Your task to perform on an android device: Clear the cart on costco. Search for dell alienware on costco, select the first entry, and add it to the cart. Image 0: 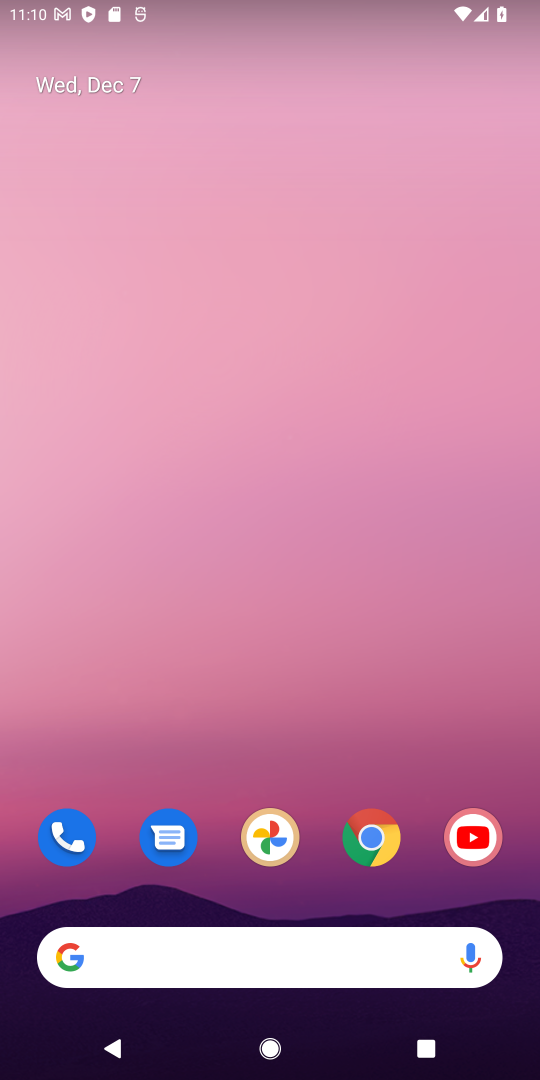
Step 0: click (366, 830)
Your task to perform on an android device: Clear the cart on costco. Search for dell alienware on costco, select the first entry, and add it to the cart. Image 1: 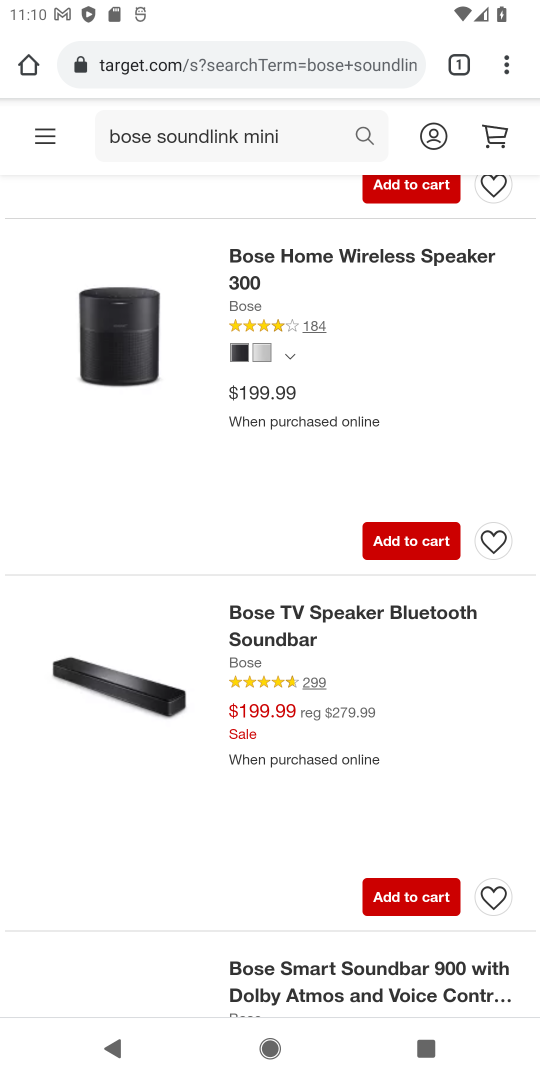
Step 1: click (273, 59)
Your task to perform on an android device: Clear the cart on costco. Search for dell alienware on costco, select the first entry, and add it to the cart. Image 2: 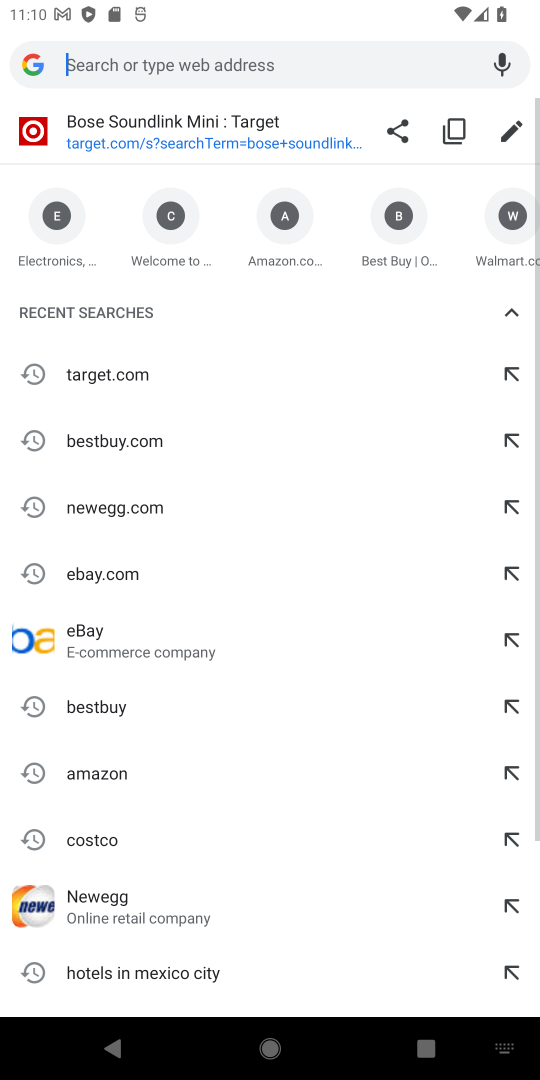
Step 2: type "costco"
Your task to perform on an android device: Clear the cart on costco. Search for dell alienware on costco, select the first entry, and add it to the cart. Image 3: 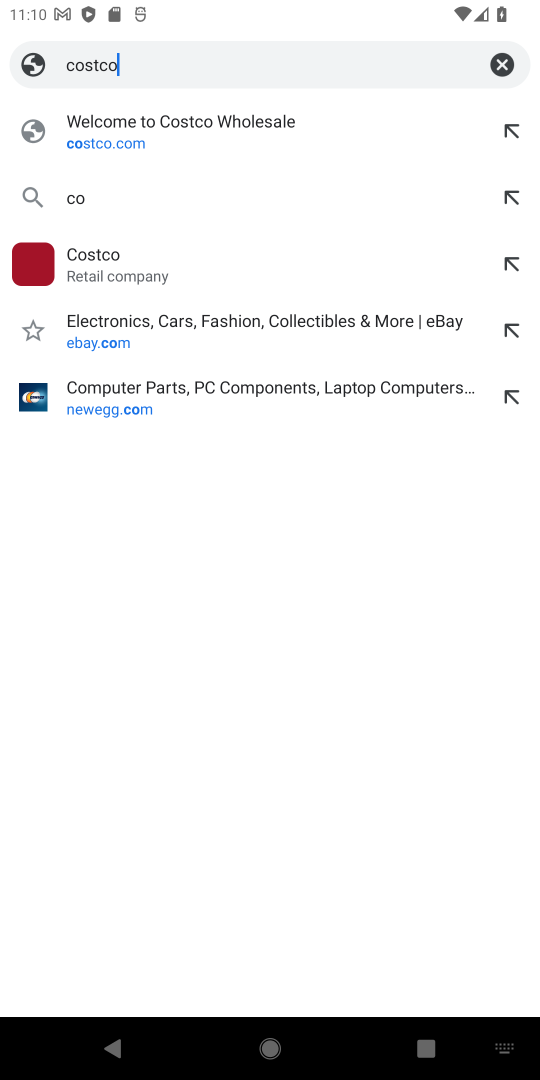
Step 3: press enter
Your task to perform on an android device: Clear the cart on costco. Search for dell alienware on costco, select the first entry, and add it to the cart. Image 4: 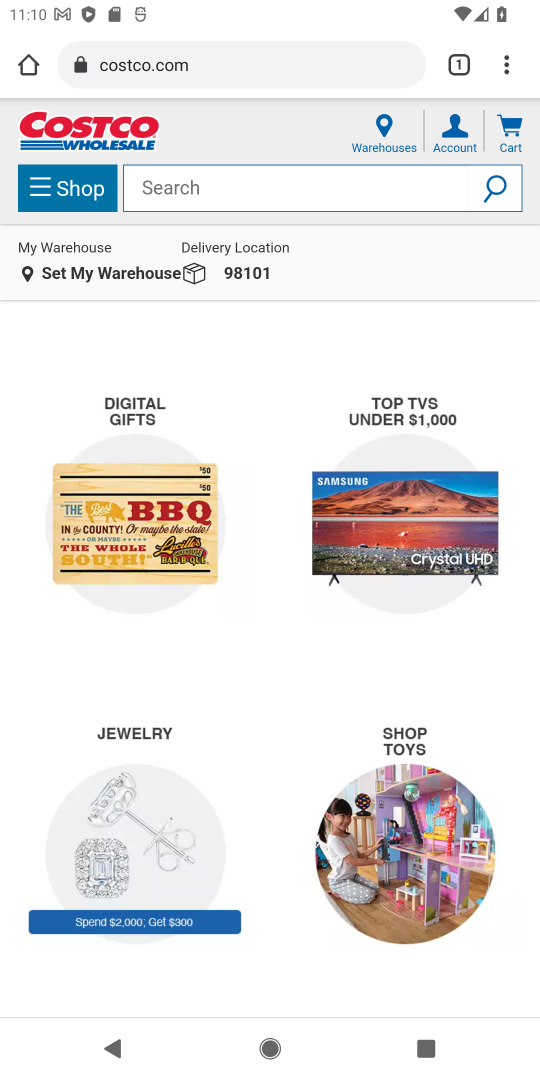
Step 4: click (514, 130)
Your task to perform on an android device: Clear the cart on costco. Search for dell alienware on costco, select the first entry, and add it to the cart. Image 5: 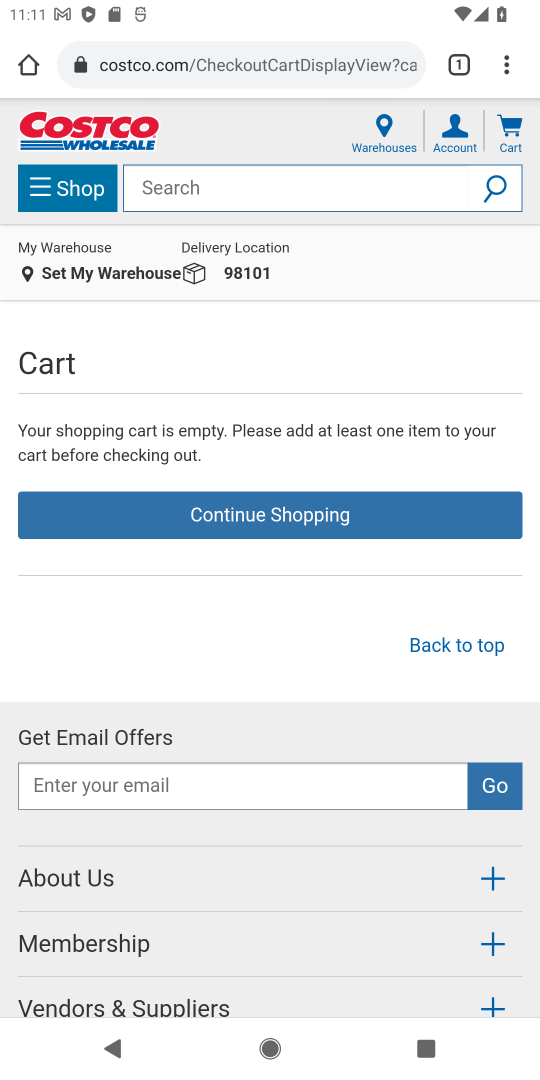
Step 5: click (376, 179)
Your task to perform on an android device: Clear the cart on costco. Search for dell alienware on costco, select the first entry, and add it to the cart. Image 6: 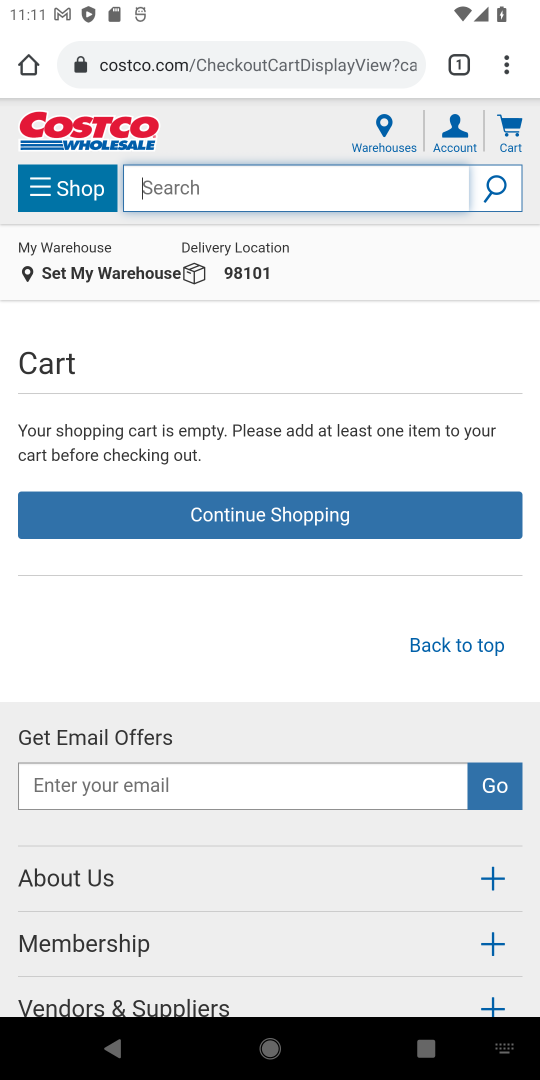
Step 6: type "dell alienware"
Your task to perform on an android device: Clear the cart on costco. Search for dell alienware on costco, select the first entry, and add it to the cart. Image 7: 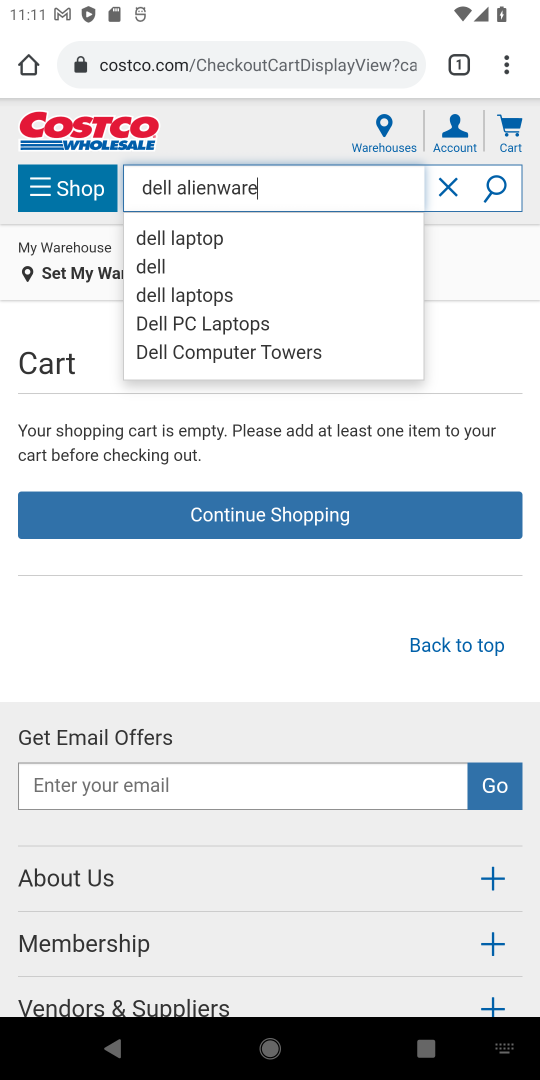
Step 7: click (501, 180)
Your task to perform on an android device: Clear the cart on costco. Search for dell alienware on costco, select the first entry, and add it to the cart. Image 8: 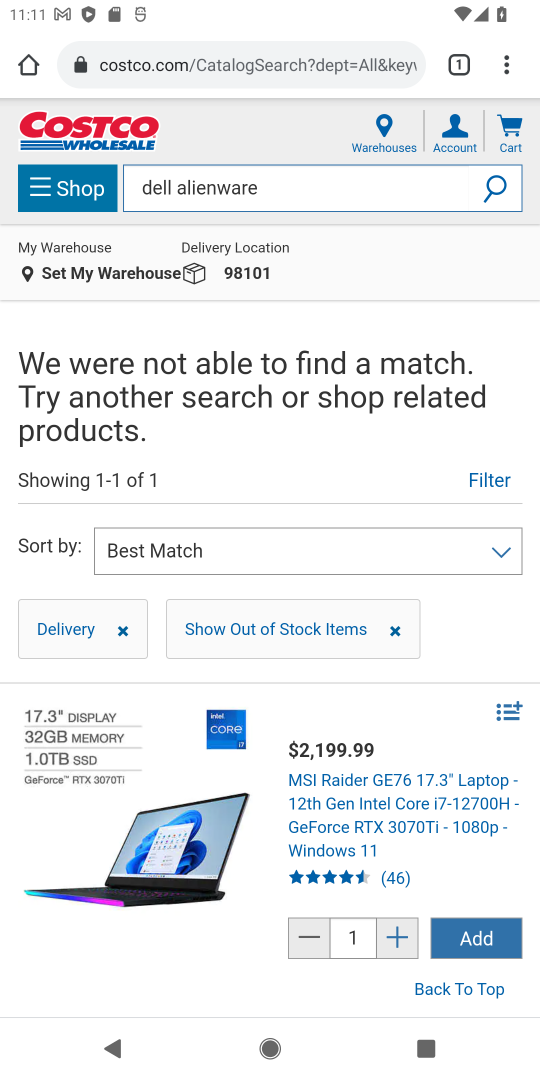
Step 8: task complete